Your task to perform on an android device: Go to Yahoo.com Image 0: 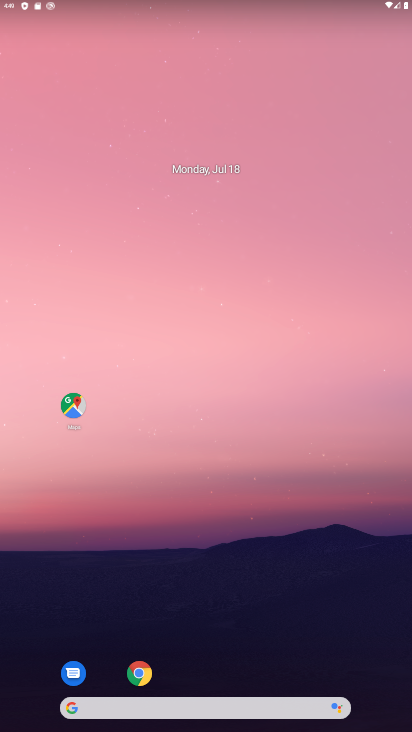
Step 0: drag from (258, 619) to (149, 95)
Your task to perform on an android device: Go to Yahoo.com Image 1: 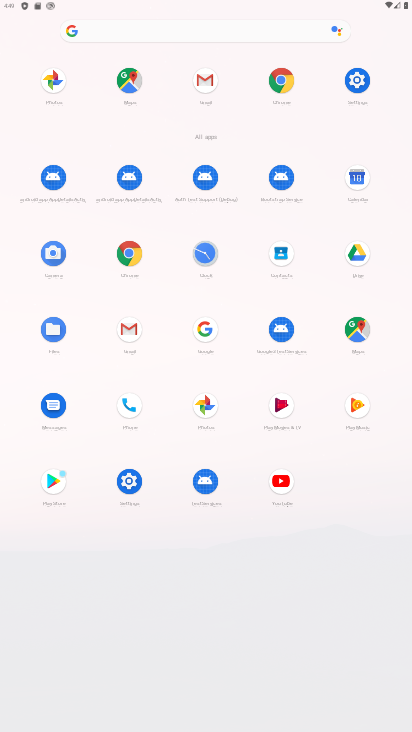
Step 1: click (276, 86)
Your task to perform on an android device: Go to Yahoo.com Image 2: 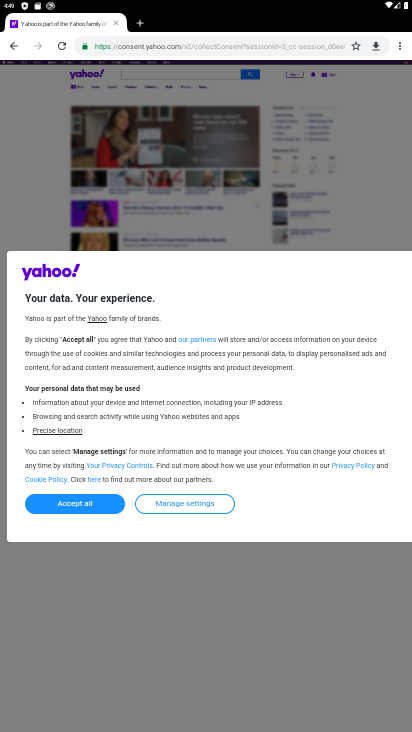
Step 2: task complete